Your task to perform on an android device: Go to Android settings Image 0: 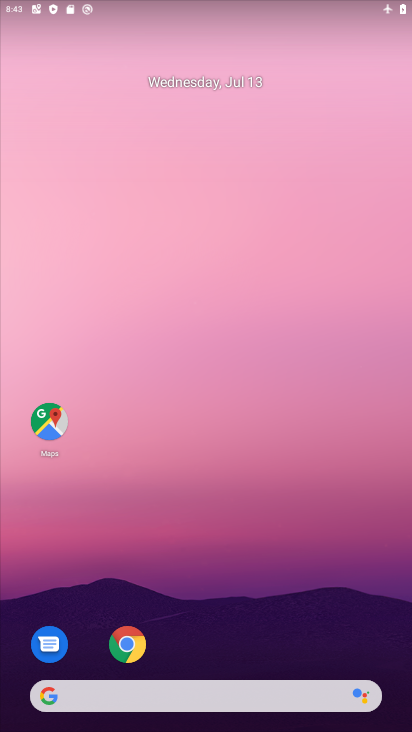
Step 0: drag from (203, 716) to (195, 156)
Your task to perform on an android device: Go to Android settings Image 1: 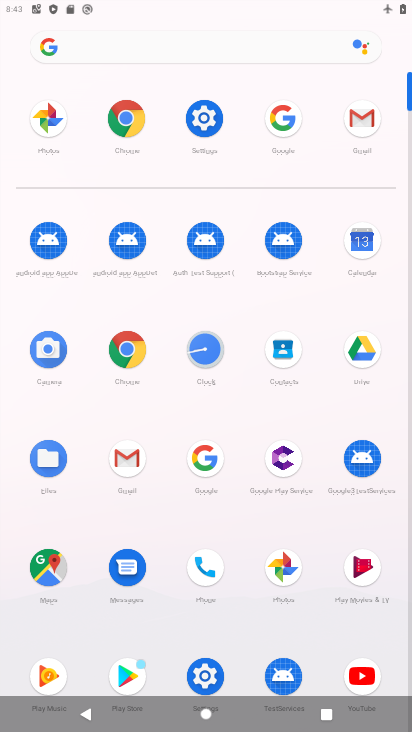
Step 1: click (198, 109)
Your task to perform on an android device: Go to Android settings Image 2: 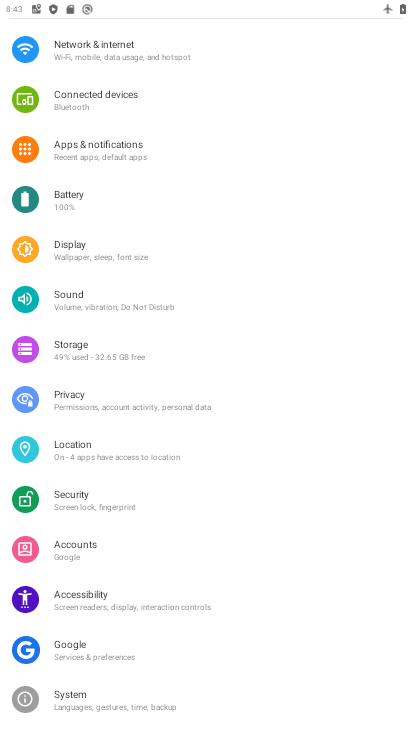
Step 2: task complete